Your task to perform on an android device: Open battery settings Image 0: 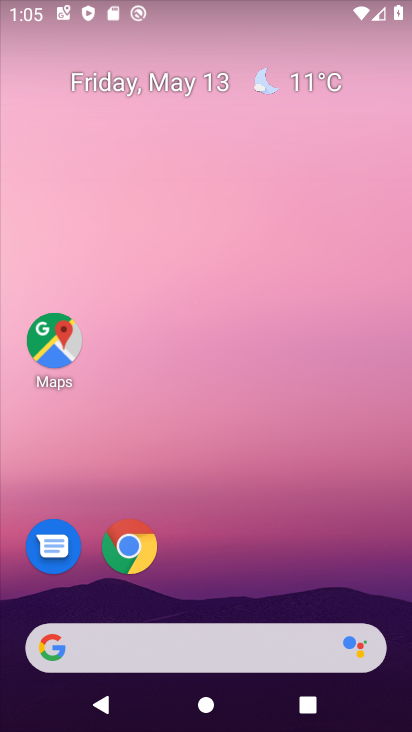
Step 0: drag from (254, 627) to (280, 155)
Your task to perform on an android device: Open battery settings Image 1: 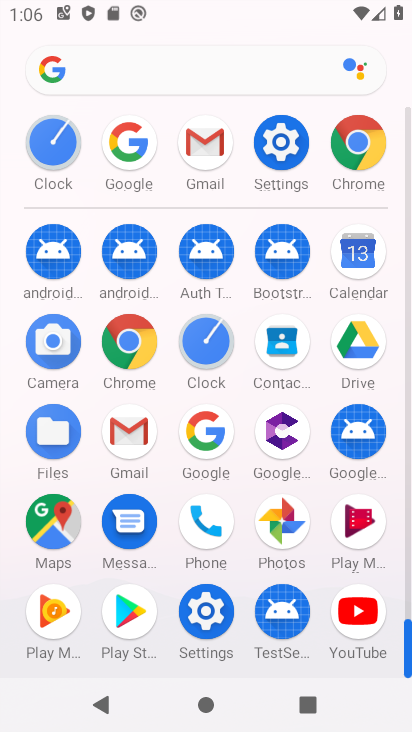
Step 1: click (281, 153)
Your task to perform on an android device: Open battery settings Image 2: 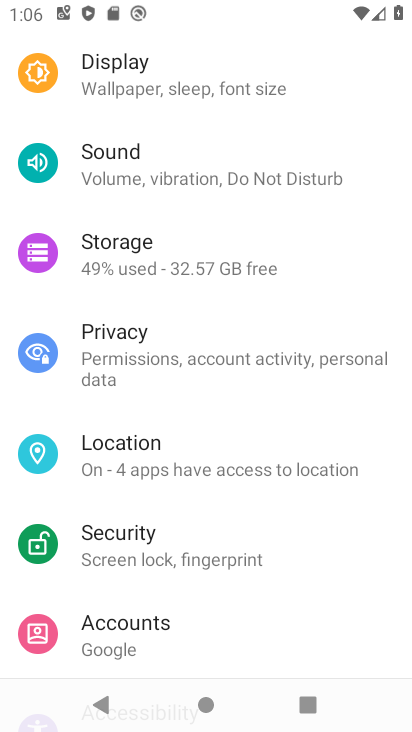
Step 2: drag from (179, 263) to (177, 605)
Your task to perform on an android device: Open battery settings Image 3: 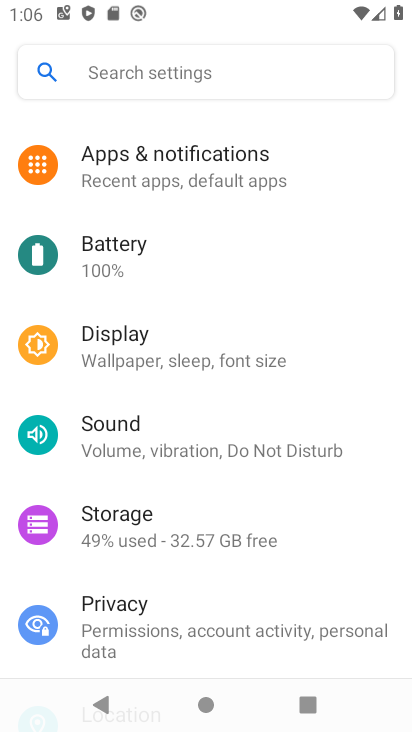
Step 3: click (170, 265)
Your task to perform on an android device: Open battery settings Image 4: 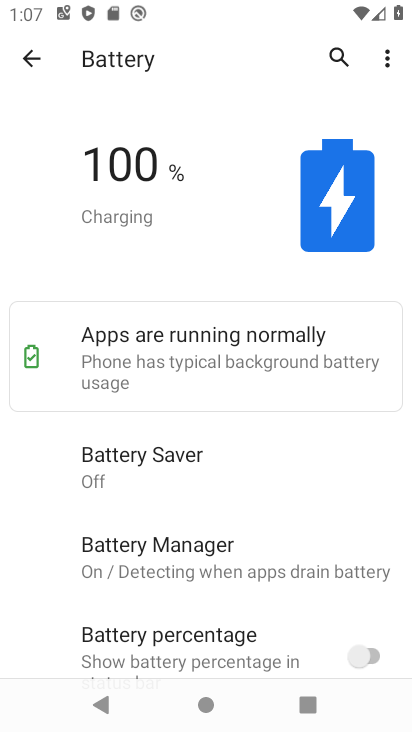
Step 4: task complete